Your task to perform on an android device: open a new tab in the chrome app Image 0: 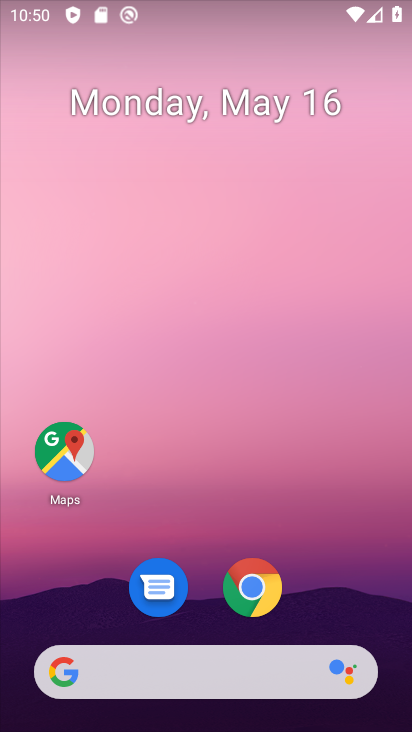
Step 0: drag from (368, 639) to (306, 113)
Your task to perform on an android device: open a new tab in the chrome app Image 1: 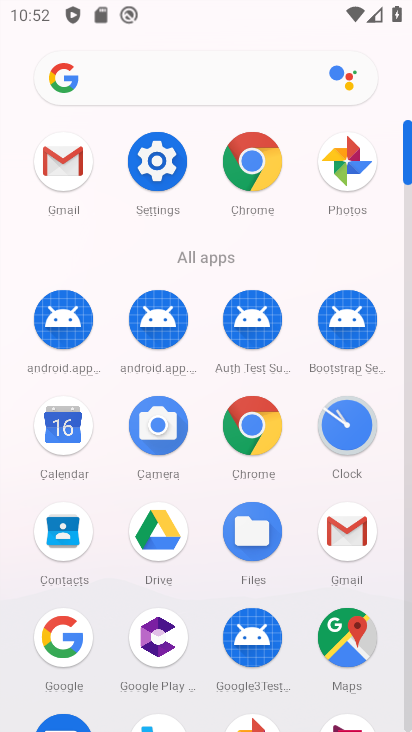
Step 1: click (232, 166)
Your task to perform on an android device: open a new tab in the chrome app Image 2: 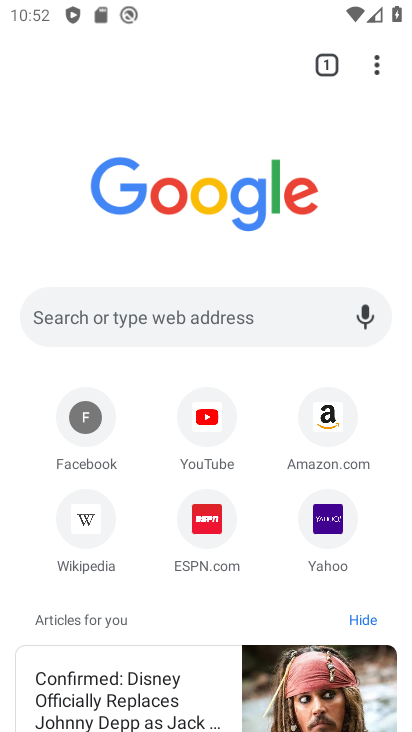
Step 2: click (384, 61)
Your task to perform on an android device: open a new tab in the chrome app Image 3: 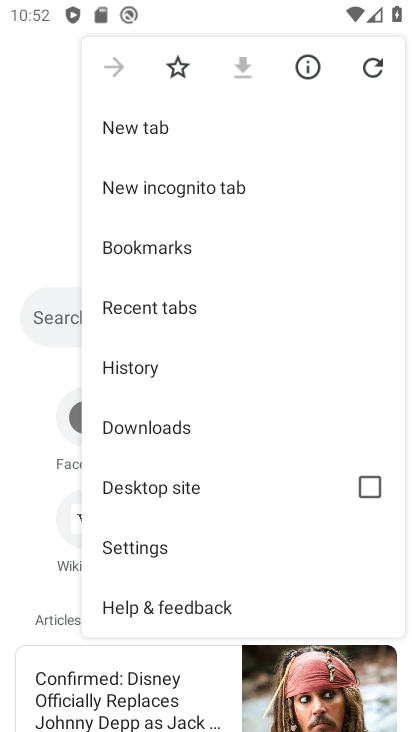
Step 3: click (221, 127)
Your task to perform on an android device: open a new tab in the chrome app Image 4: 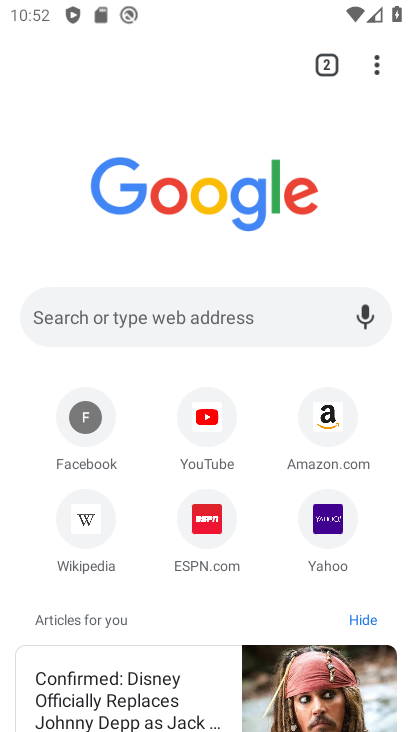
Step 4: task complete